Your task to perform on an android device: Open maps Image 0: 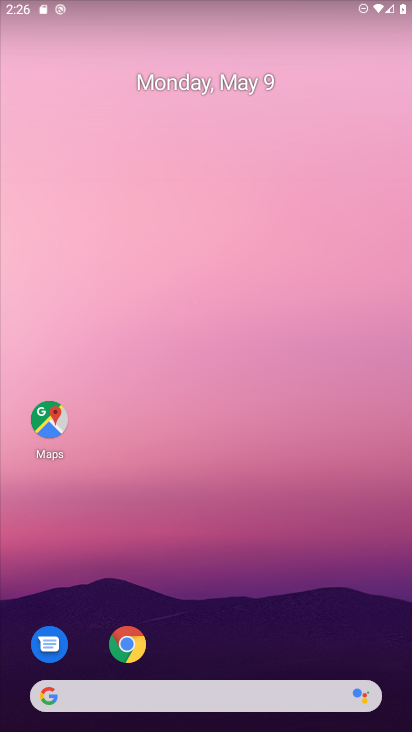
Step 0: drag from (287, 594) to (254, 57)
Your task to perform on an android device: Open maps Image 1: 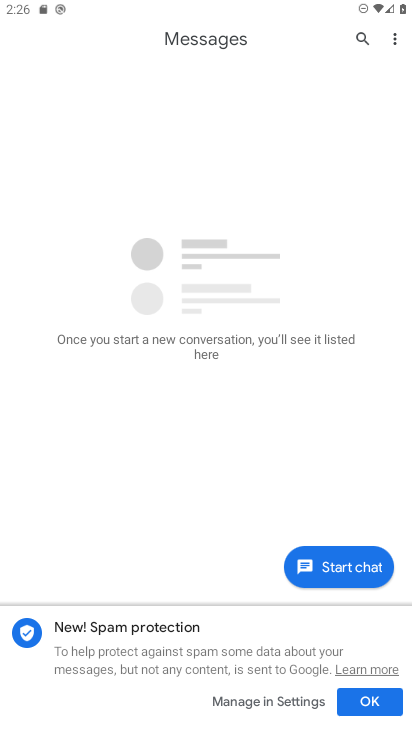
Step 1: press home button
Your task to perform on an android device: Open maps Image 2: 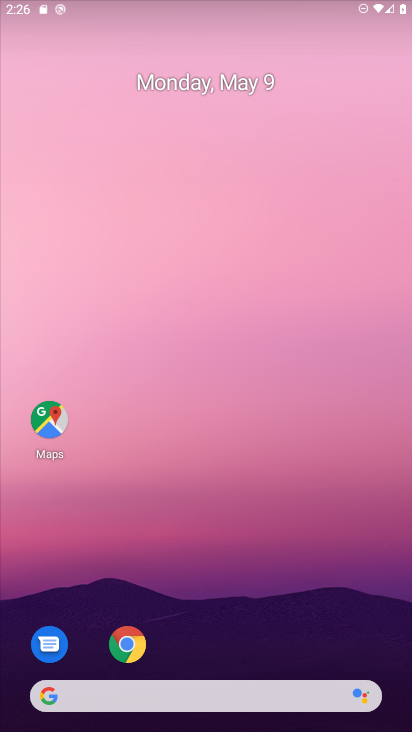
Step 2: drag from (239, 651) to (179, 260)
Your task to perform on an android device: Open maps Image 3: 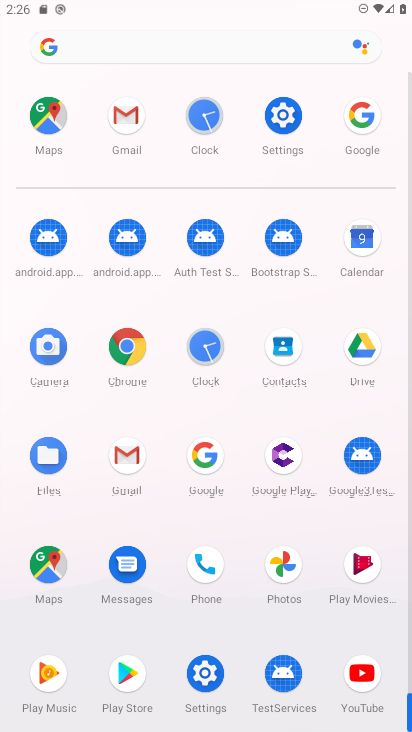
Step 3: click (63, 121)
Your task to perform on an android device: Open maps Image 4: 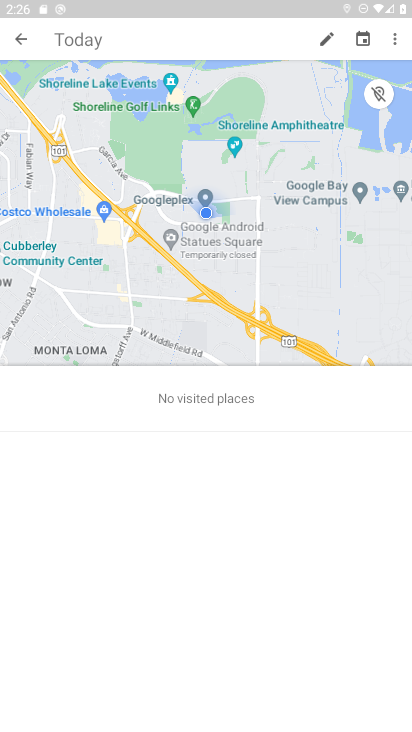
Step 4: task complete